Your task to perform on an android device: open app "YouTube Kids" Image 0: 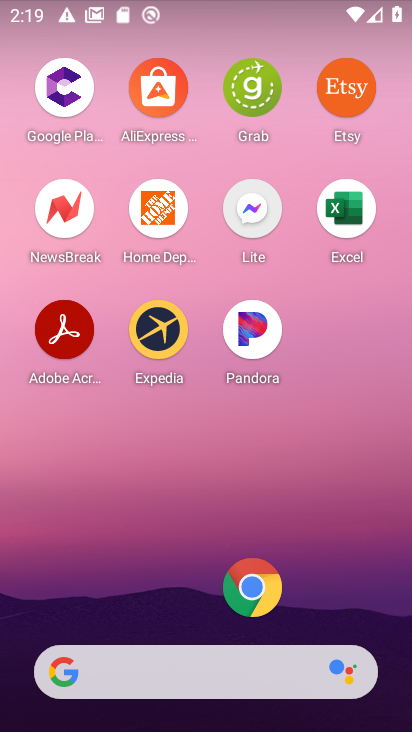
Step 0: drag from (188, 586) to (241, 225)
Your task to perform on an android device: open app "YouTube Kids" Image 1: 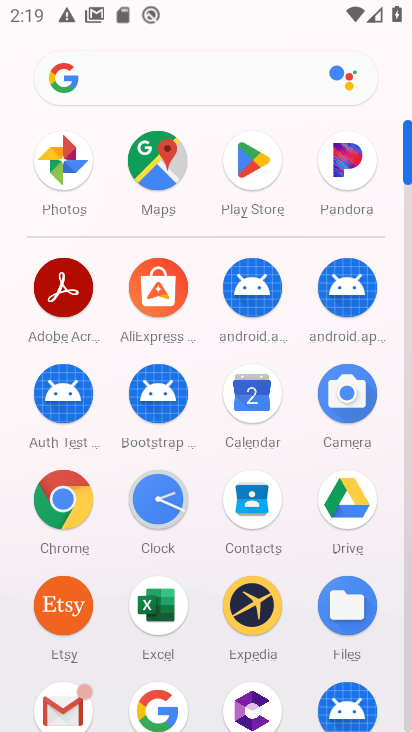
Step 1: click (264, 190)
Your task to perform on an android device: open app "YouTube Kids" Image 2: 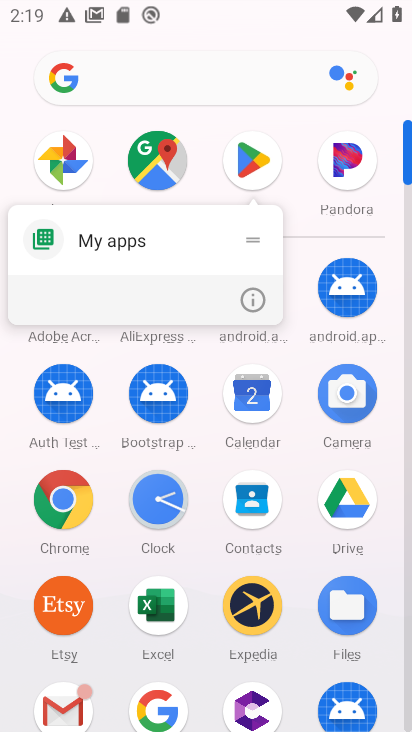
Step 2: click (255, 170)
Your task to perform on an android device: open app "YouTube Kids" Image 3: 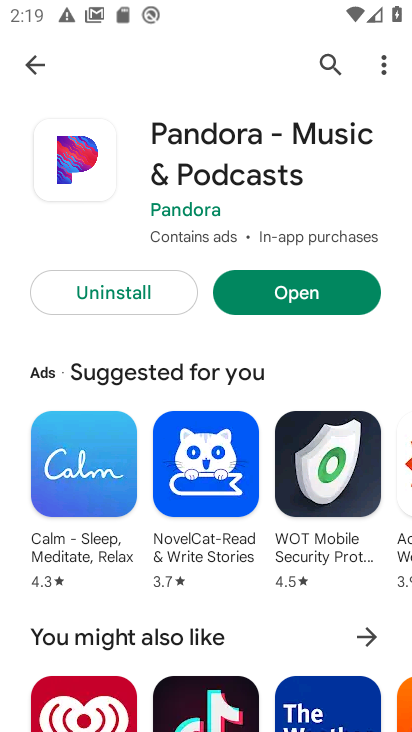
Step 3: click (325, 75)
Your task to perform on an android device: open app "YouTube Kids" Image 4: 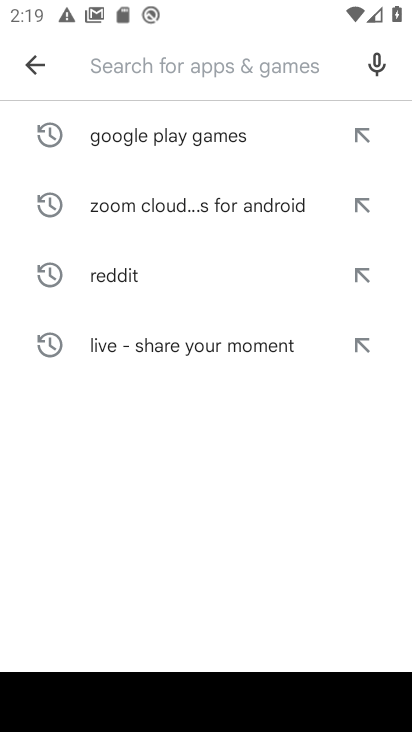
Step 4: type "YouTube Kids"
Your task to perform on an android device: open app "YouTube Kids" Image 5: 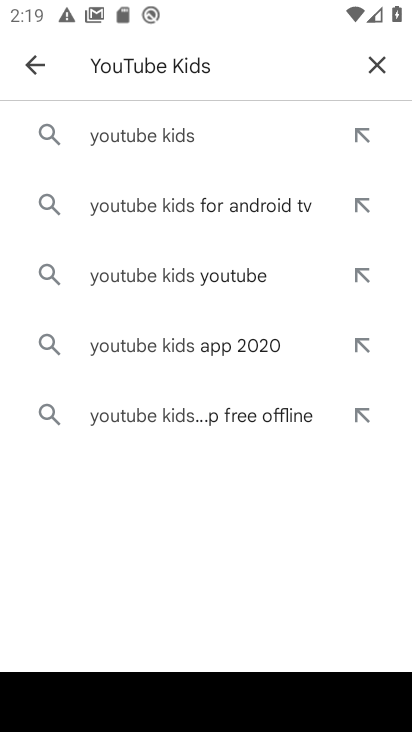
Step 5: click (200, 136)
Your task to perform on an android device: open app "YouTube Kids" Image 6: 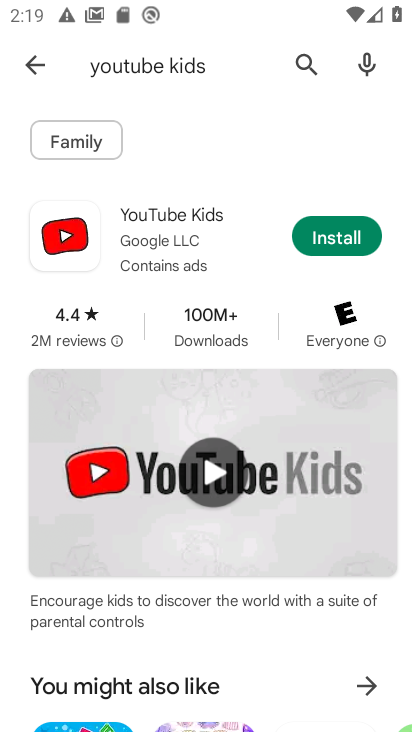
Step 6: task complete